Your task to perform on an android device: Open Yahoo.com Image 0: 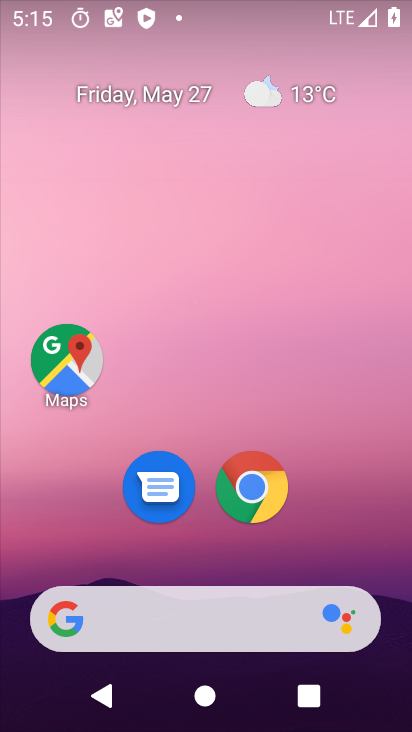
Step 0: click (251, 482)
Your task to perform on an android device: Open Yahoo.com Image 1: 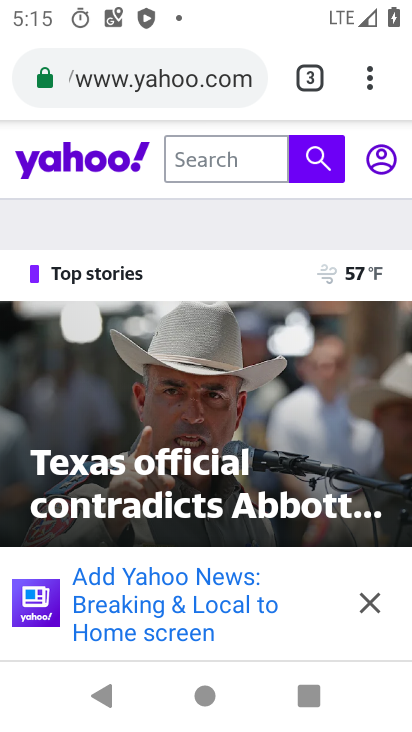
Step 1: task complete